Your task to perform on an android device: What is the recent news? Image 0: 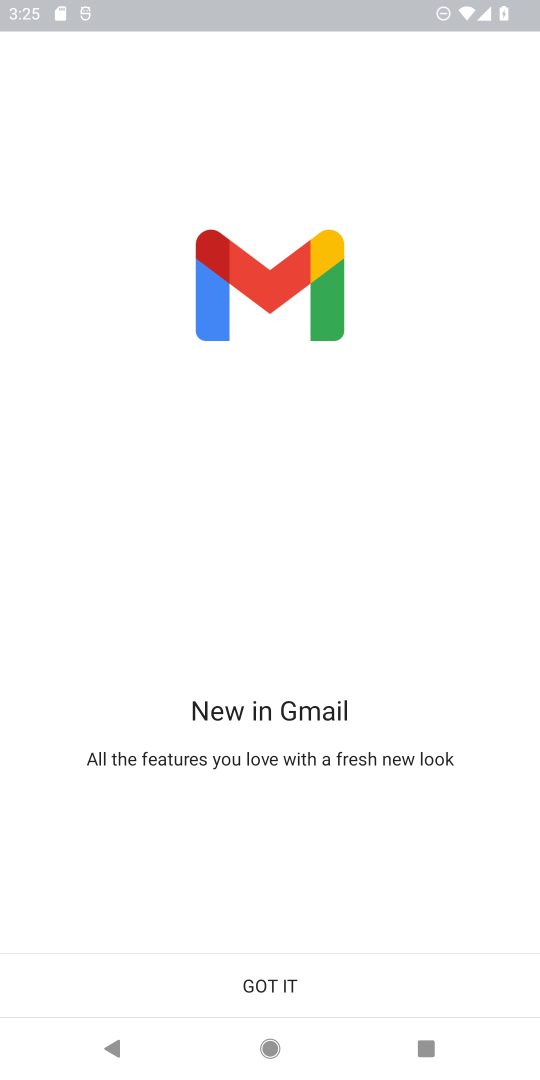
Step 0: press home button
Your task to perform on an android device: What is the recent news? Image 1: 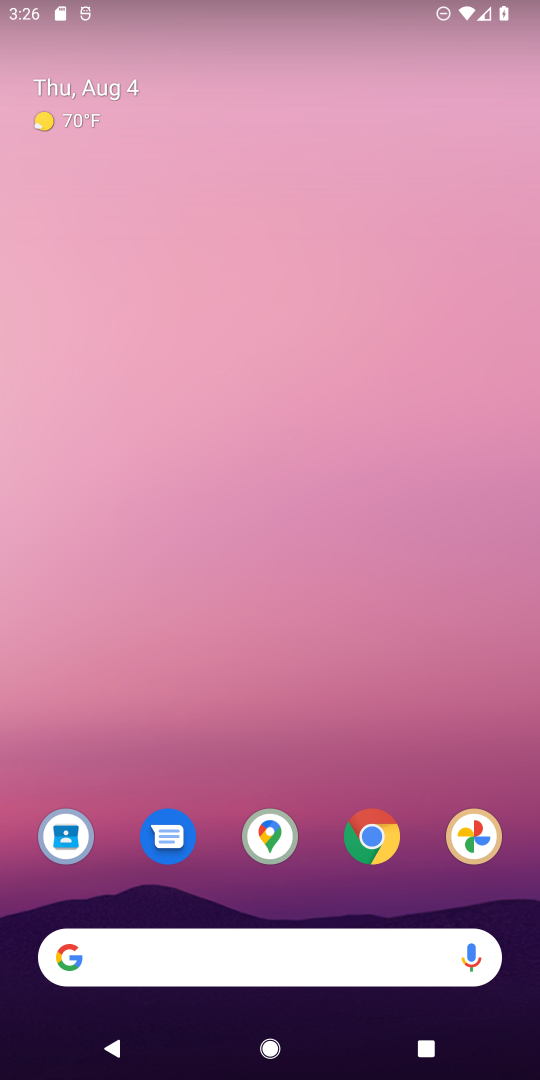
Step 1: click (326, 944)
Your task to perform on an android device: What is the recent news? Image 2: 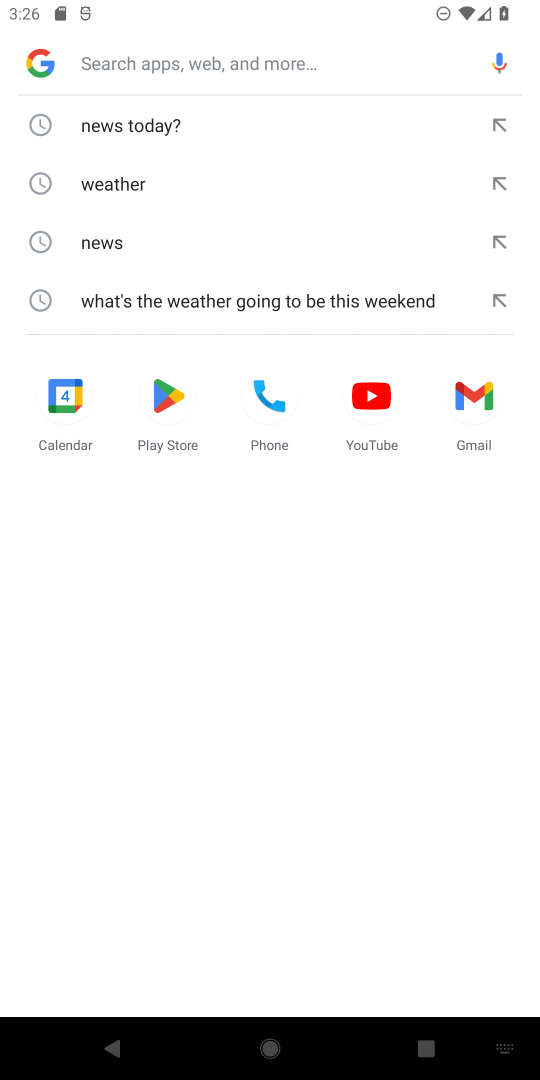
Step 2: type "recent news"
Your task to perform on an android device: What is the recent news? Image 3: 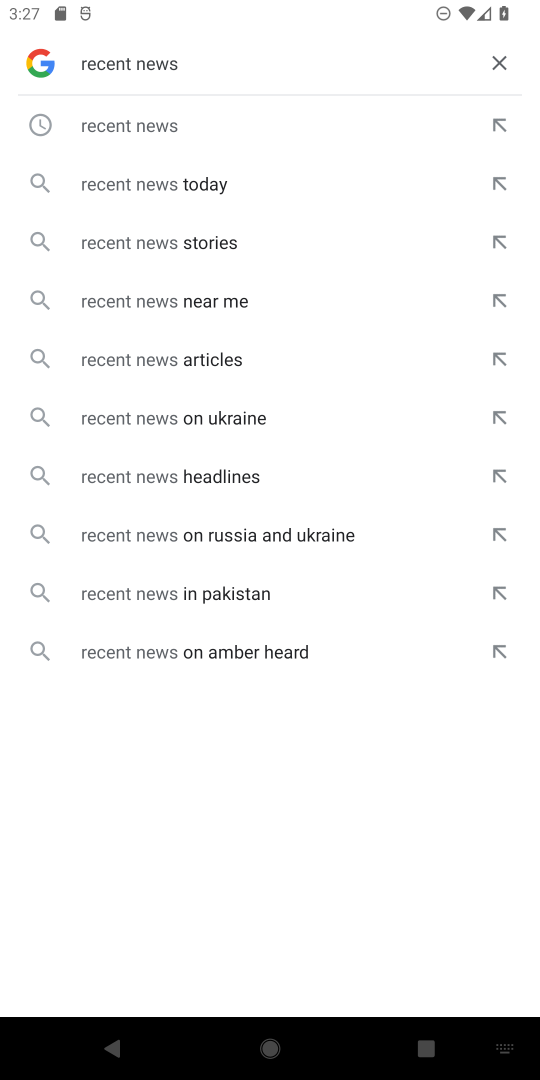
Step 3: click (134, 128)
Your task to perform on an android device: What is the recent news? Image 4: 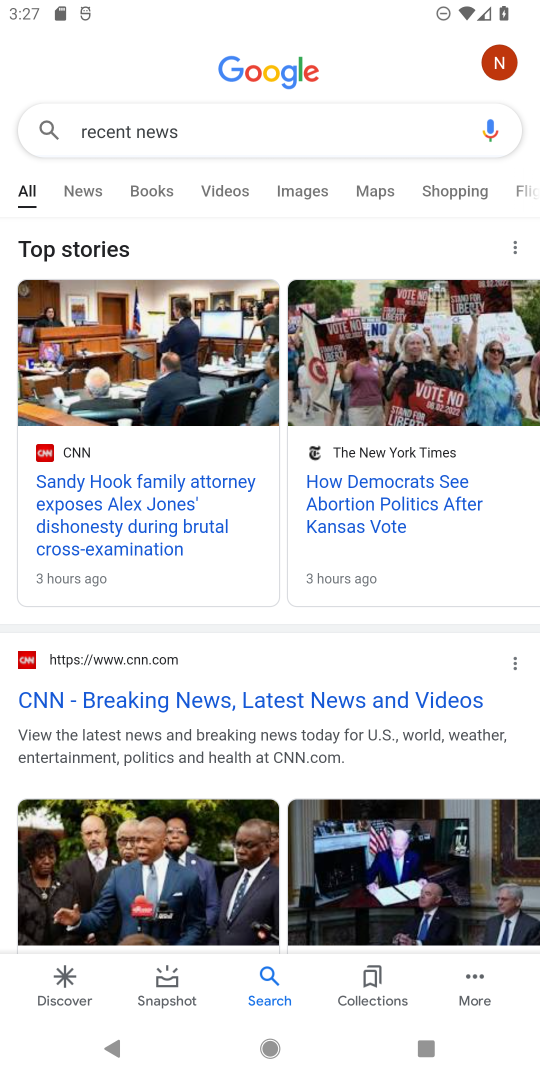
Step 4: task complete